Your task to perform on an android device: toggle translation in the chrome app Image 0: 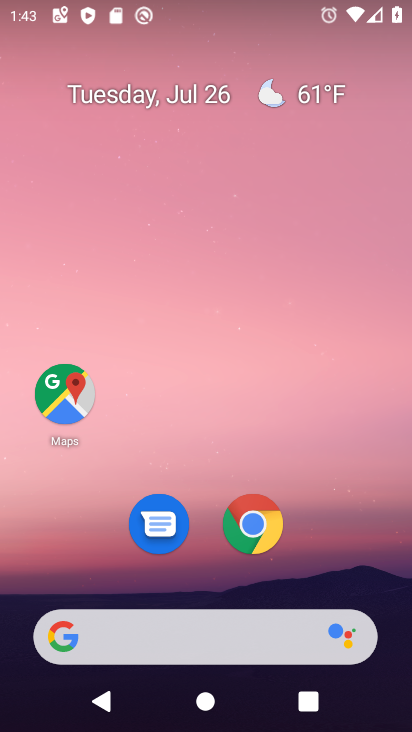
Step 0: press home button
Your task to perform on an android device: toggle translation in the chrome app Image 1: 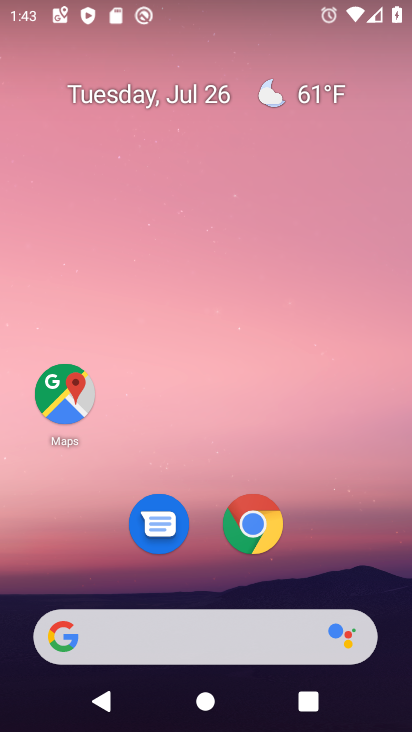
Step 1: click (268, 520)
Your task to perform on an android device: toggle translation in the chrome app Image 2: 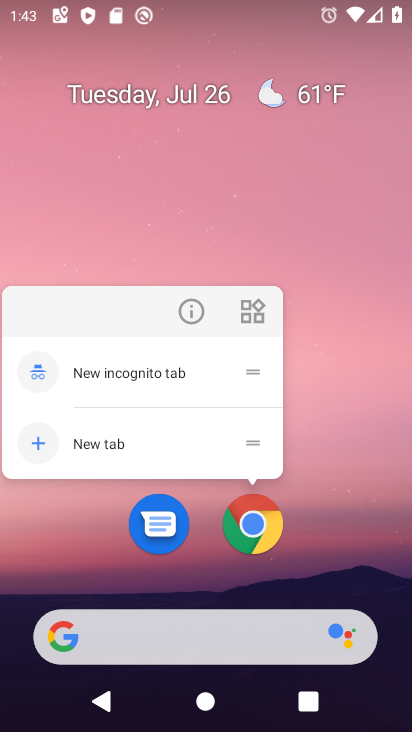
Step 2: click (257, 522)
Your task to perform on an android device: toggle translation in the chrome app Image 3: 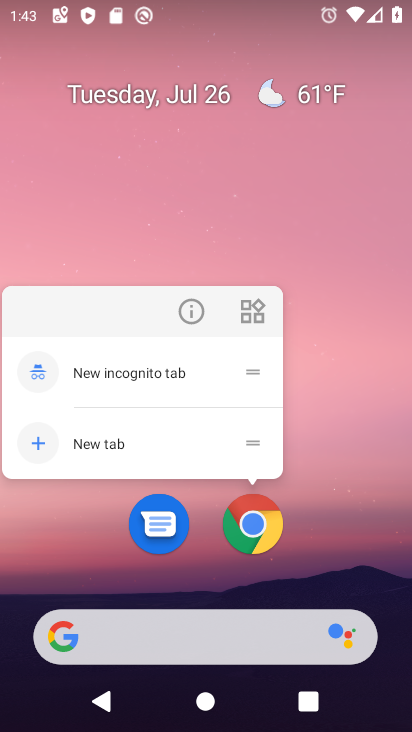
Step 3: click (250, 527)
Your task to perform on an android device: toggle translation in the chrome app Image 4: 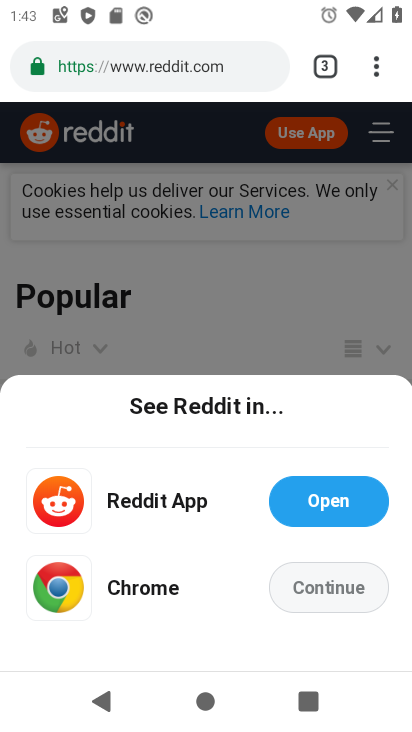
Step 4: drag from (383, 74) to (270, 534)
Your task to perform on an android device: toggle translation in the chrome app Image 5: 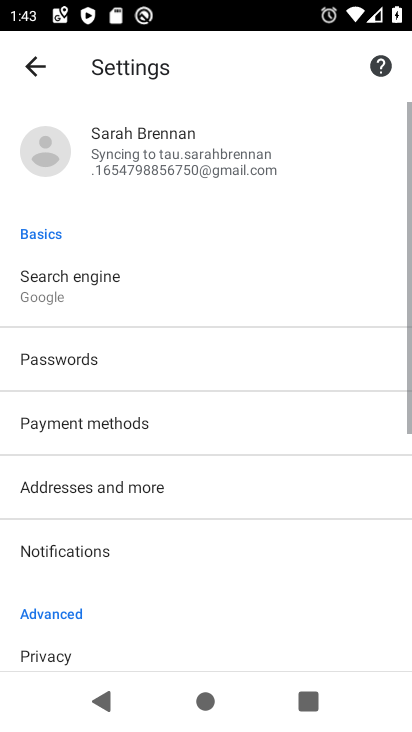
Step 5: drag from (209, 591) to (278, 91)
Your task to perform on an android device: toggle translation in the chrome app Image 6: 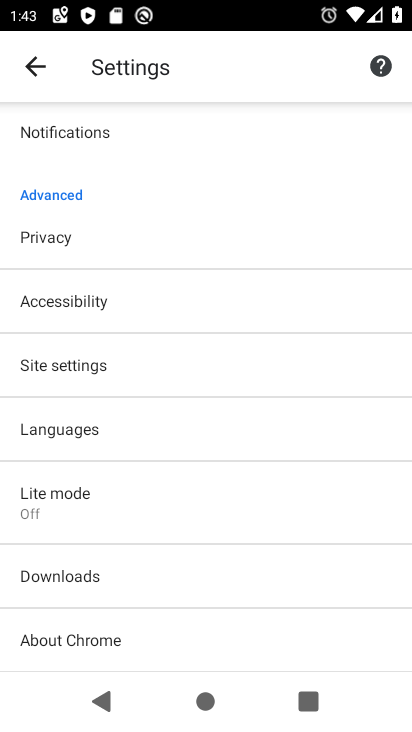
Step 6: click (91, 441)
Your task to perform on an android device: toggle translation in the chrome app Image 7: 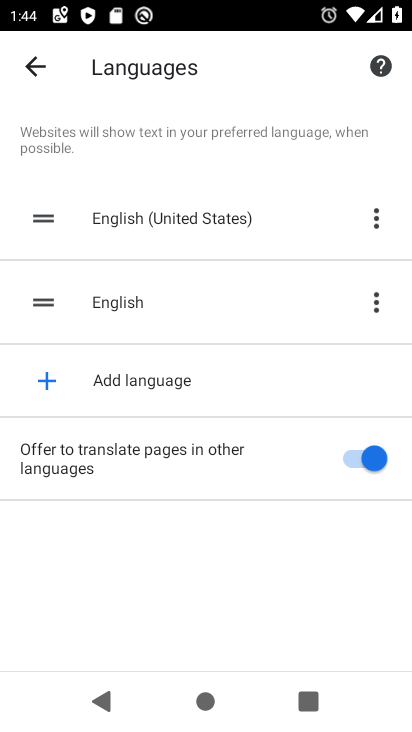
Step 7: click (355, 454)
Your task to perform on an android device: toggle translation in the chrome app Image 8: 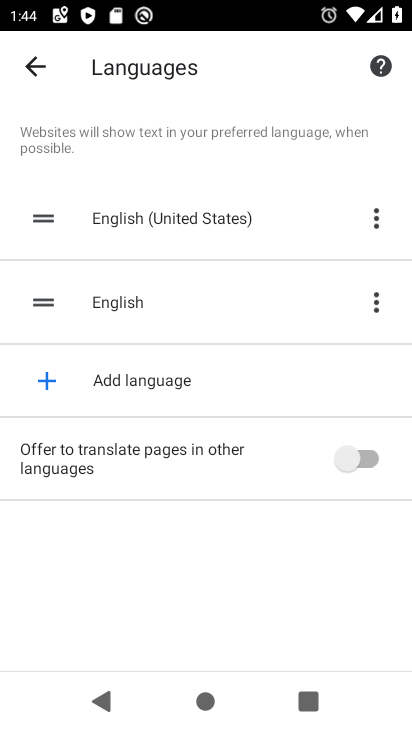
Step 8: task complete